Your task to perform on an android device: Open settings Image 0: 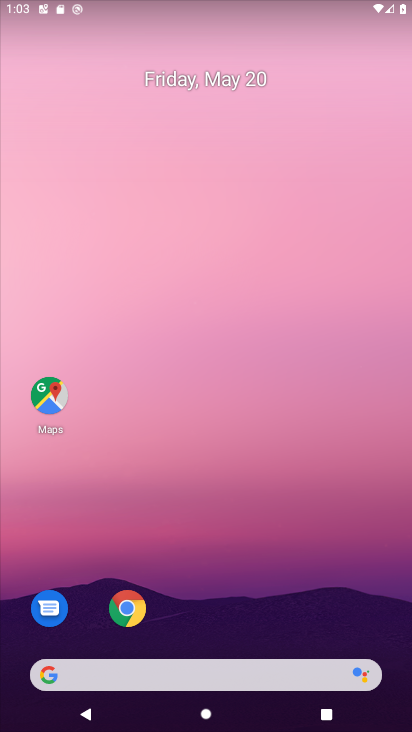
Step 0: drag from (218, 615) to (301, 183)
Your task to perform on an android device: Open settings Image 1: 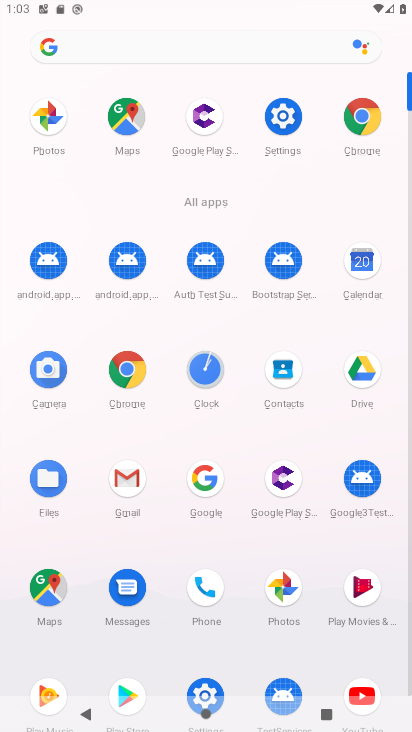
Step 1: click (288, 128)
Your task to perform on an android device: Open settings Image 2: 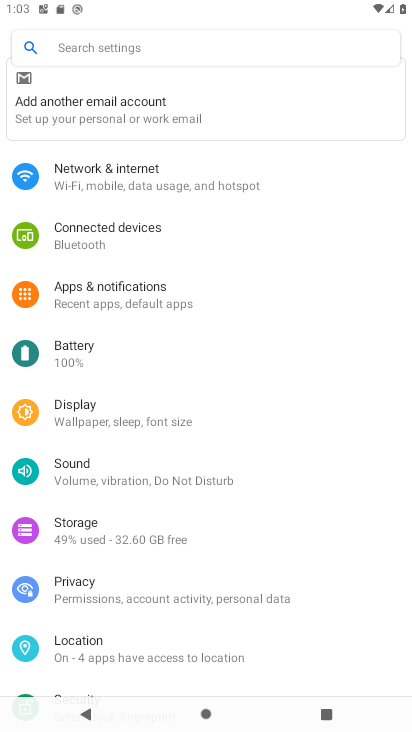
Step 2: task complete